Your task to perform on an android device: snooze an email in the gmail app Image 0: 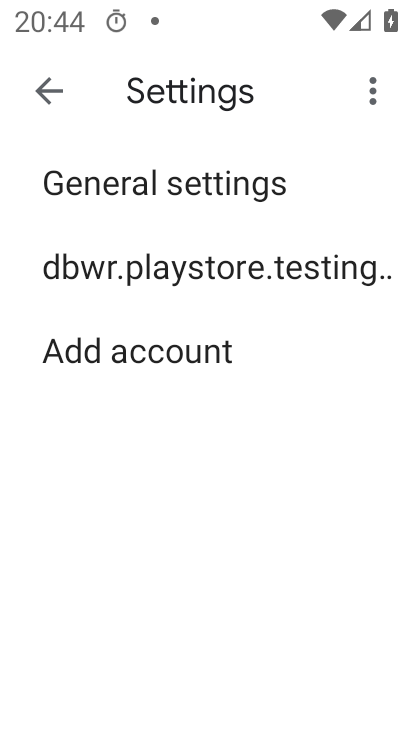
Step 0: press home button
Your task to perform on an android device: snooze an email in the gmail app Image 1: 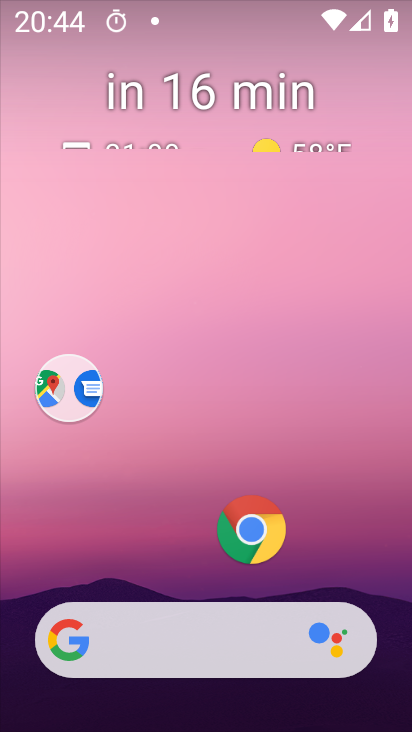
Step 1: drag from (160, 559) to (180, 141)
Your task to perform on an android device: snooze an email in the gmail app Image 2: 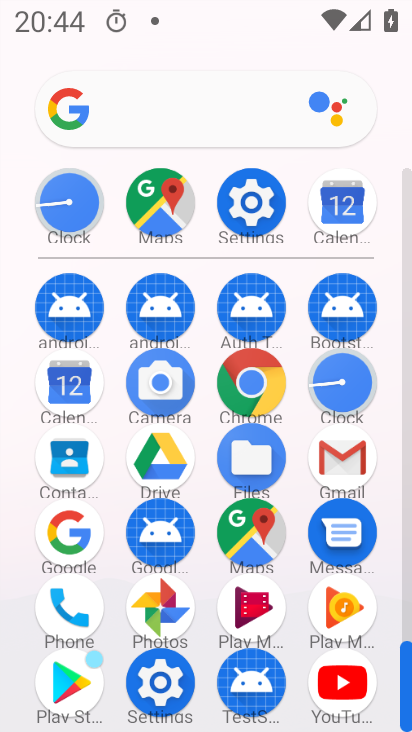
Step 2: click (335, 461)
Your task to perform on an android device: snooze an email in the gmail app Image 3: 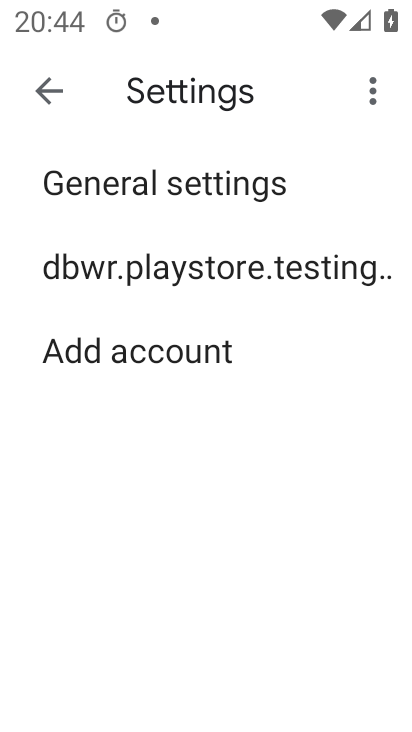
Step 3: click (143, 274)
Your task to perform on an android device: snooze an email in the gmail app Image 4: 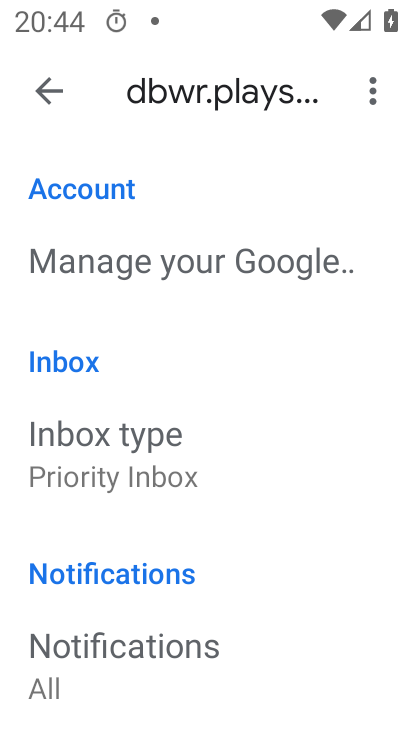
Step 4: press back button
Your task to perform on an android device: snooze an email in the gmail app Image 5: 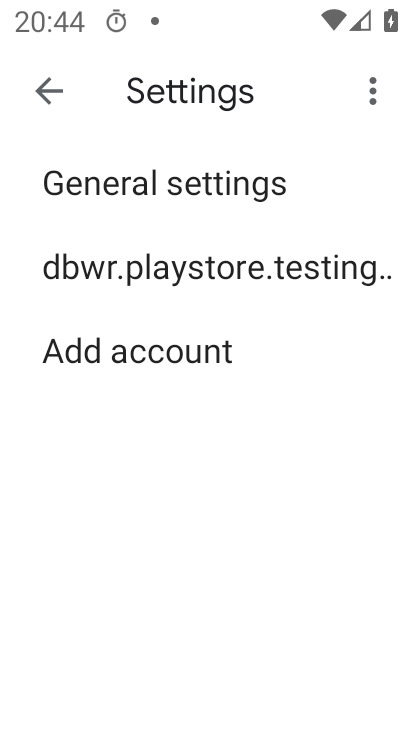
Step 5: press back button
Your task to perform on an android device: snooze an email in the gmail app Image 6: 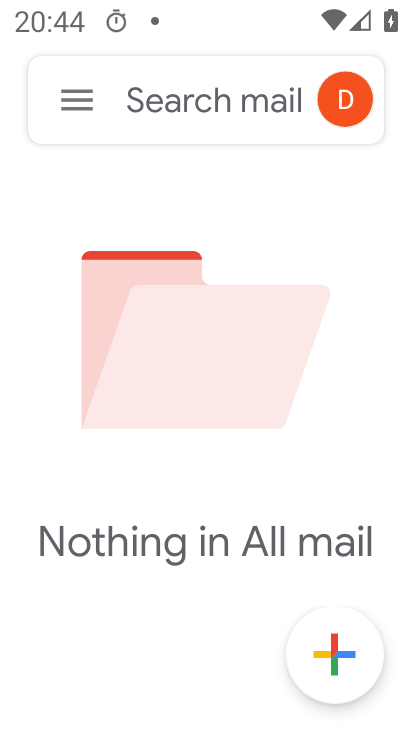
Step 6: click (66, 95)
Your task to perform on an android device: snooze an email in the gmail app Image 7: 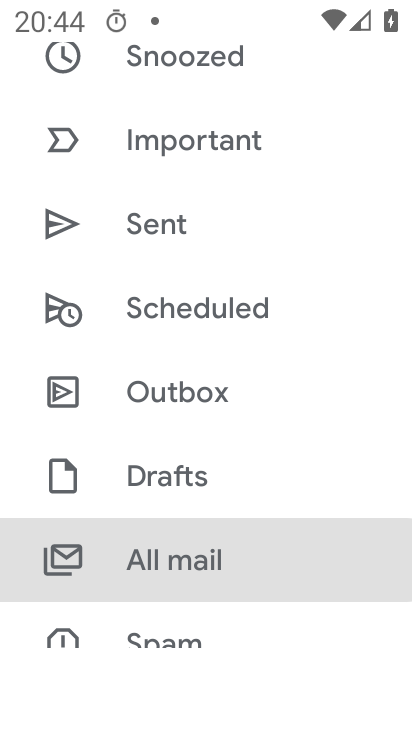
Step 7: drag from (271, 146) to (282, 614)
Your task to perform on an android device: snooze an email in the gmail app Image 8: 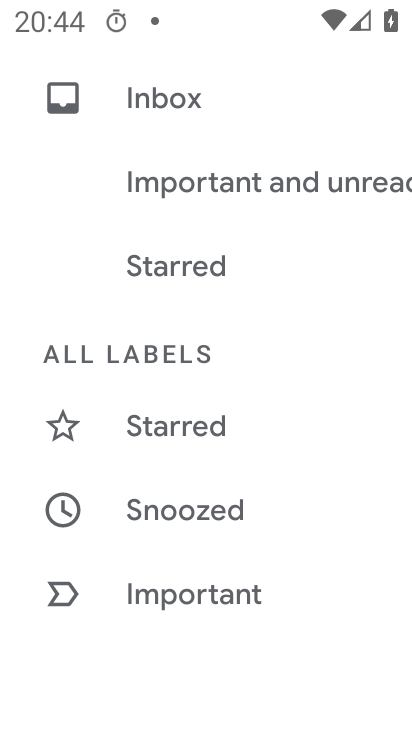
Step 8: drag from (248, 553) to (261, 142)
Your task to perform on an android device: snooze an email in the gmail app Image 9: 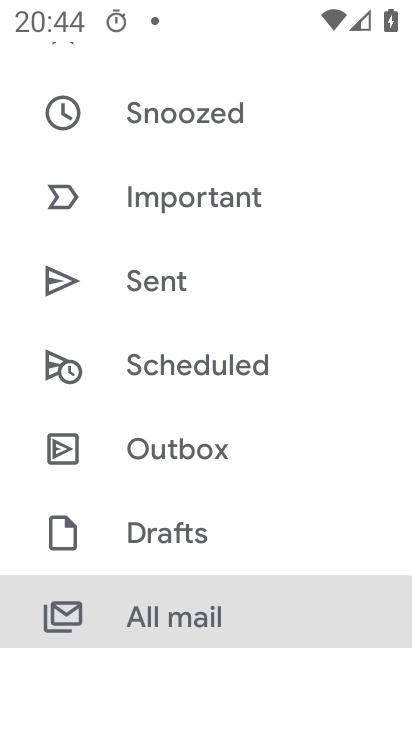
Step 9: click (169, 616)
Your task to perform on an android device: snooze an email in the gmail app Image 10: 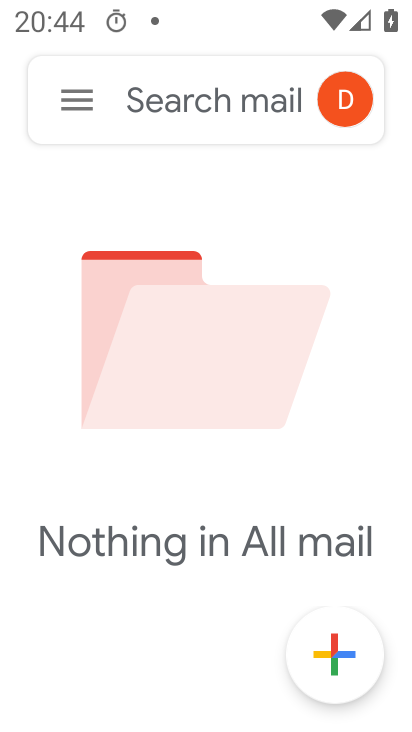
Step 10: task complete